Your task to perform on an android device: stop showing notifications on the lock screen Image 0: 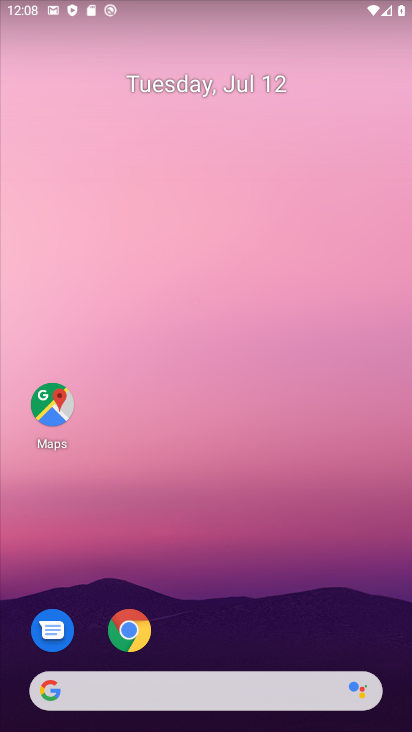
Step 0: click (137, 622)
Your task to perform on an android device: stop showing notifications on the lock screen Image 1: 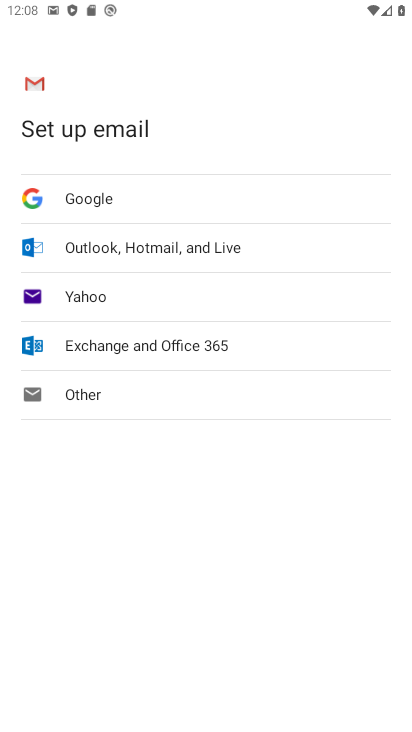
Step 1: press home button
Your task to perform on an android device: stop showing notifications on the lock screen Image 2: 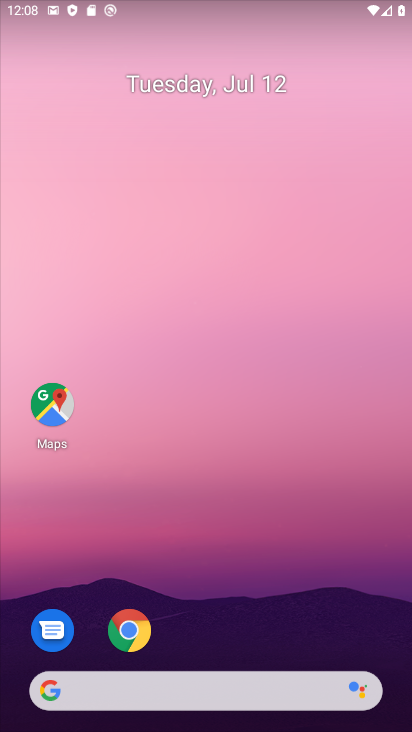
Step 2: click (129, 627)
Your task to perform on an android device: stop showing notifications on the lock screen Image 3: 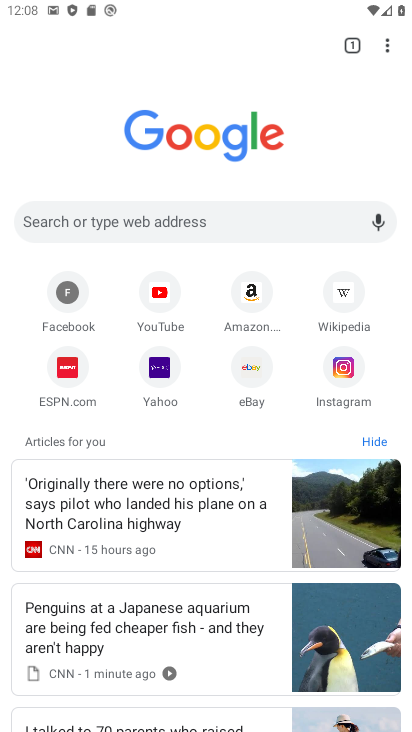
Step 3: click (385, 55)
Your task to perform on an android device: stop showing notifications on the lock screen Image 4: 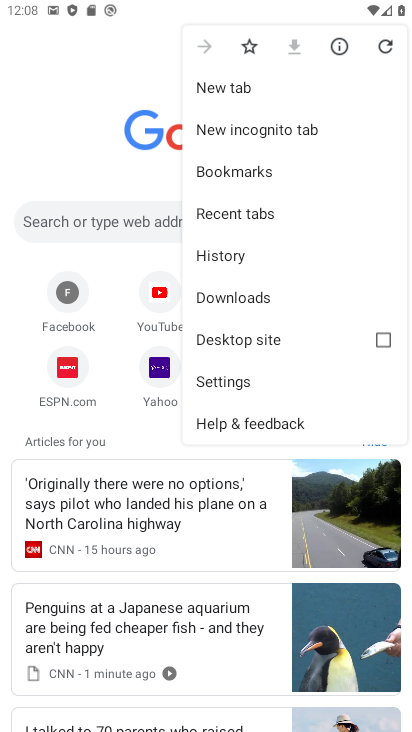
Step 4: click (266, 82)
Your task to perform on an android device: stop showing notifications on the lock screen Image 5: 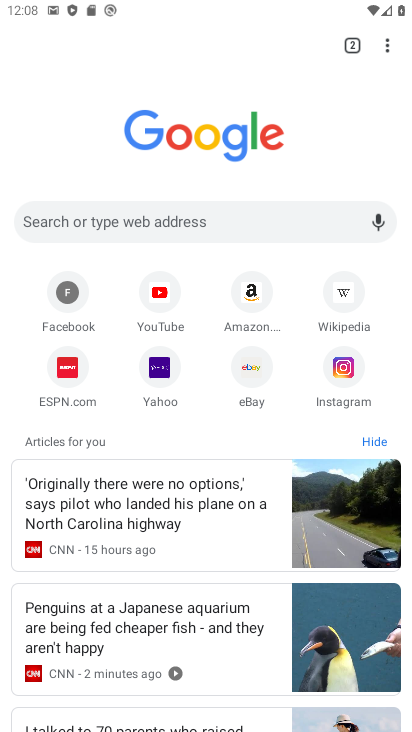
Step 5: click (261, 366)
Your task to perform on an android device: stop showing notifications on the lock screen Image 6: 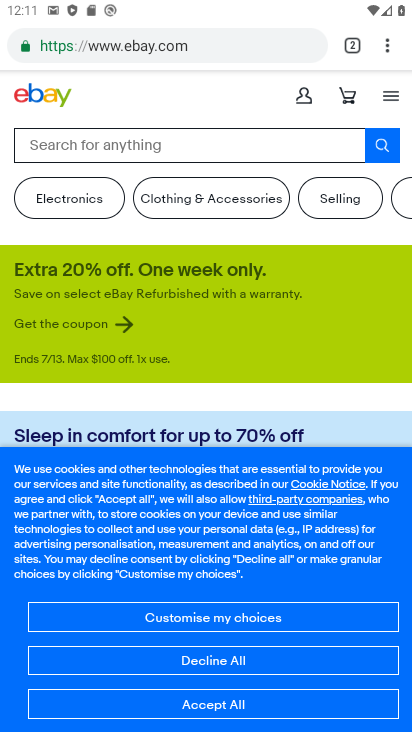
Step 6: task complete